Your task to perform on an android device: What's on the menu at Five Guys? Image 0: 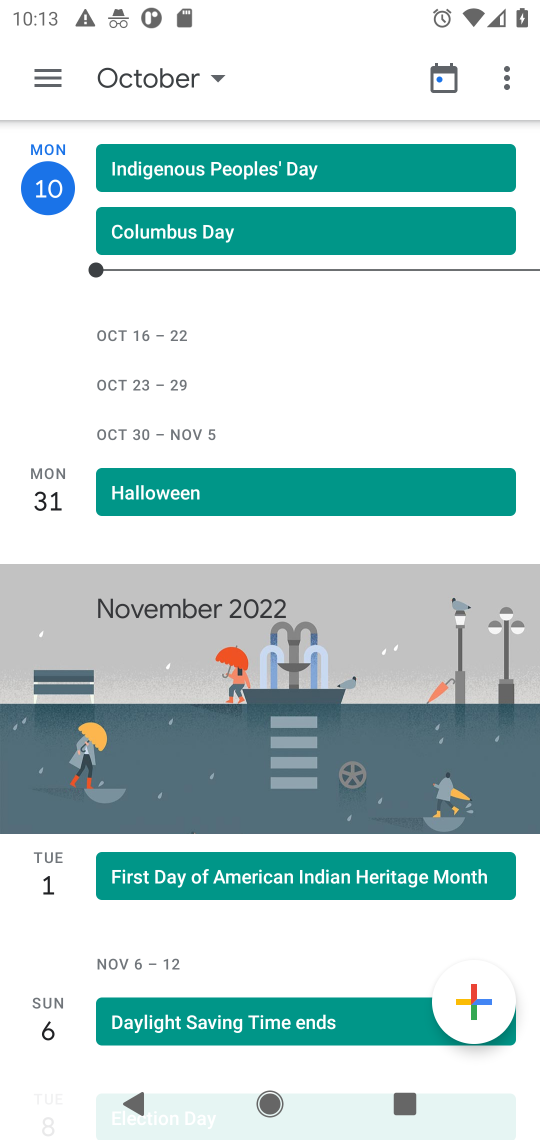
Step 0: press home button
Your task to perform on an android device: What's on the menu at Five Guys? Image 1: 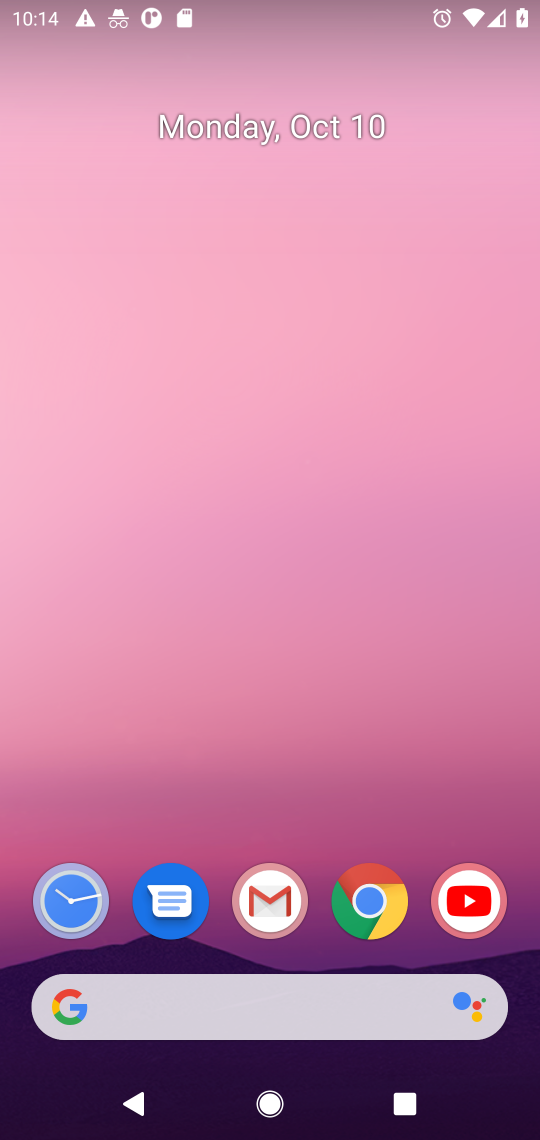
Step 1: click (352, 1009)
Your task to perform on an android device: What's on the menu at Five Guys? Image 2: 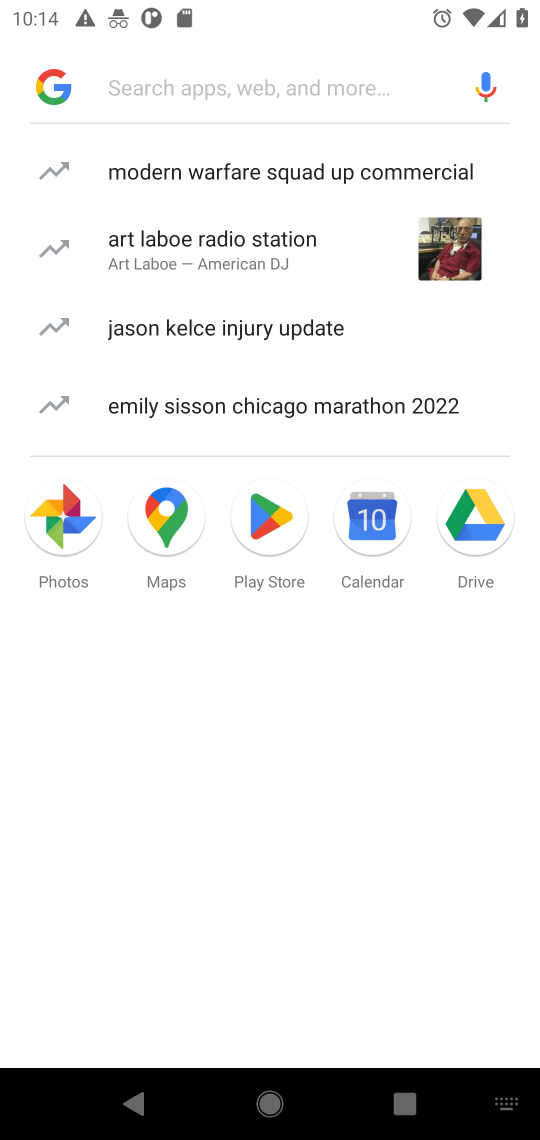
Step 2: type "What's on the menu at Five Guys?"
Your task to perform on an android device: What's on the menu at Five Guys? Image 3: 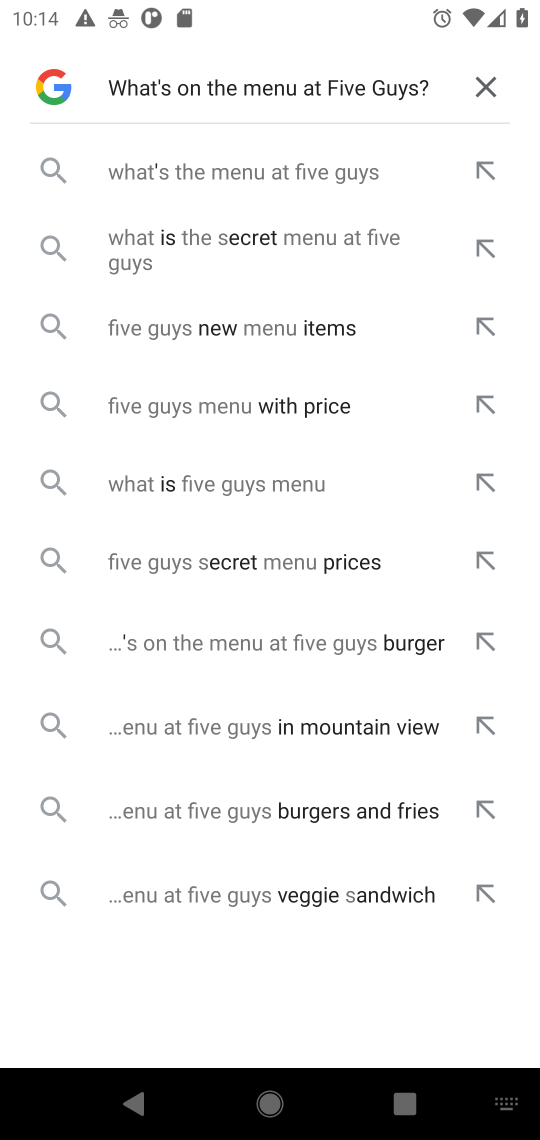
Step 3: press enter
Your task to perform on an android device: What's on the menu at Five Guys? Image 4: 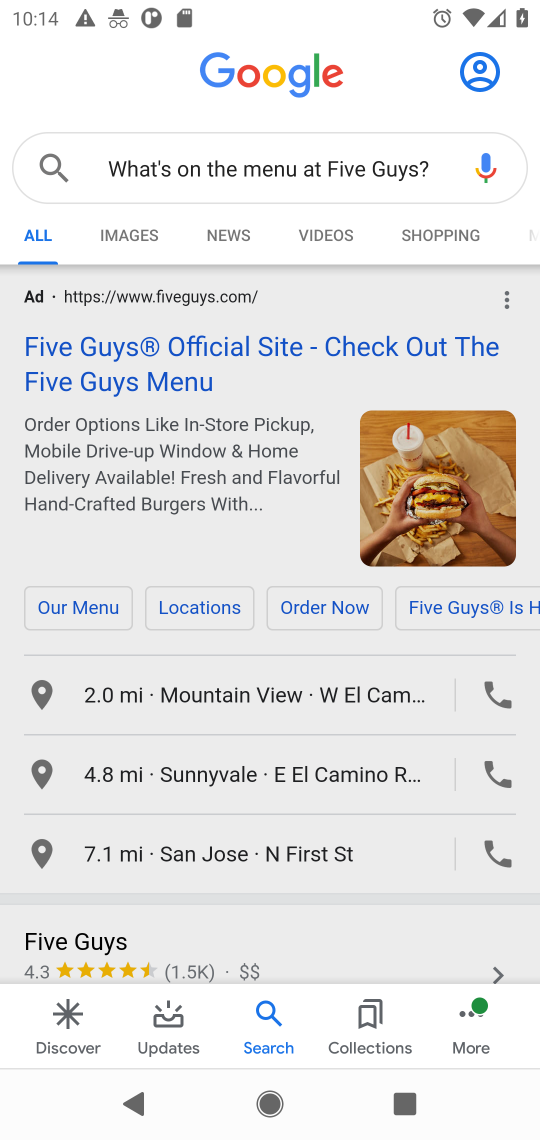
Step 4: drag from (283, 871) to (279, 744)
Your task to perform on an android device: What's on the menu at Five Guys? Image 5: 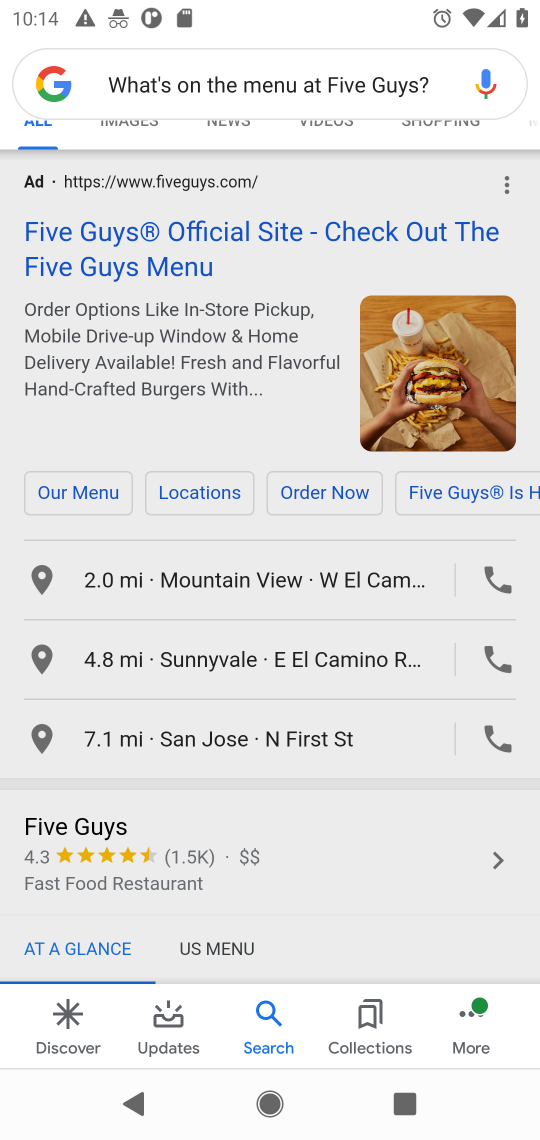
Step 5: drag from (307, 913) to (298, 491)
Your task to perform on an android device: What's on the menu at Five Guys? Image 6: 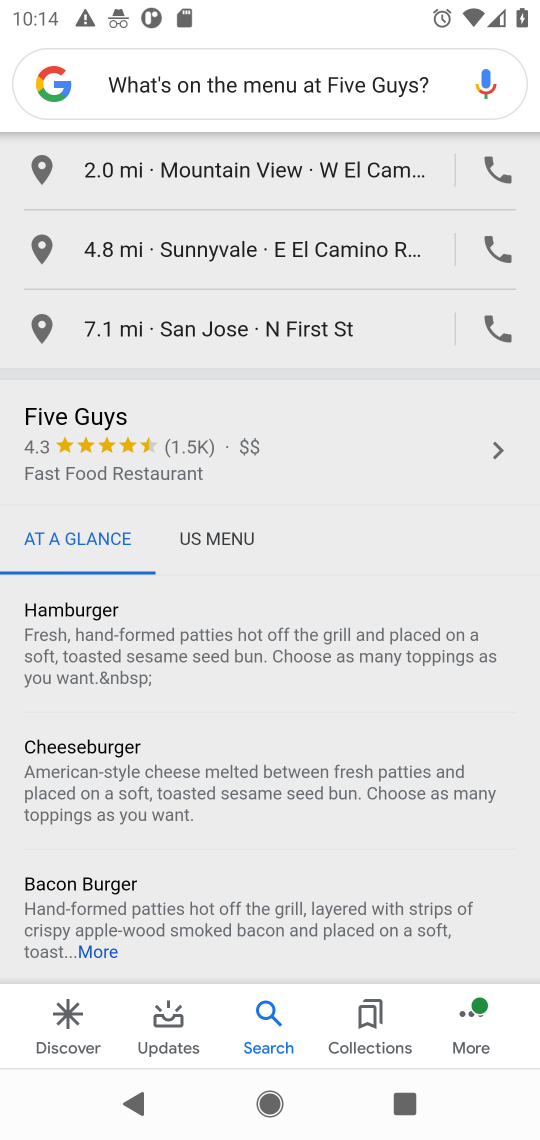
Step 6: drag from (290, 825) to (301, 487)
Your task to perform on an android device: What's on the menu at Five Guys? Image 7: 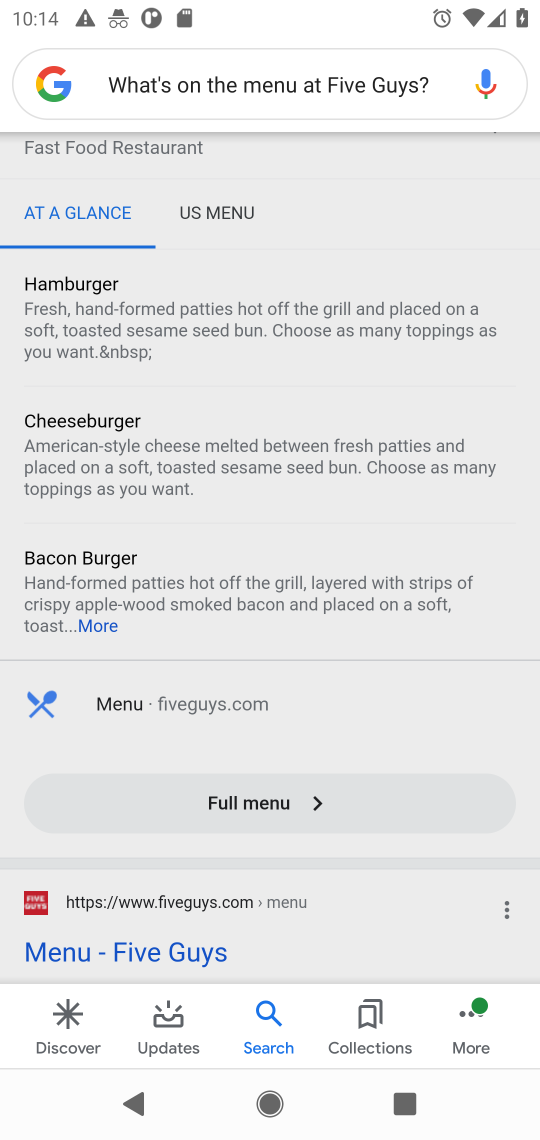
Step 7: click (272, 800)
Your task to perform on an android device: What's on the menu at Five Guys? Image 8: 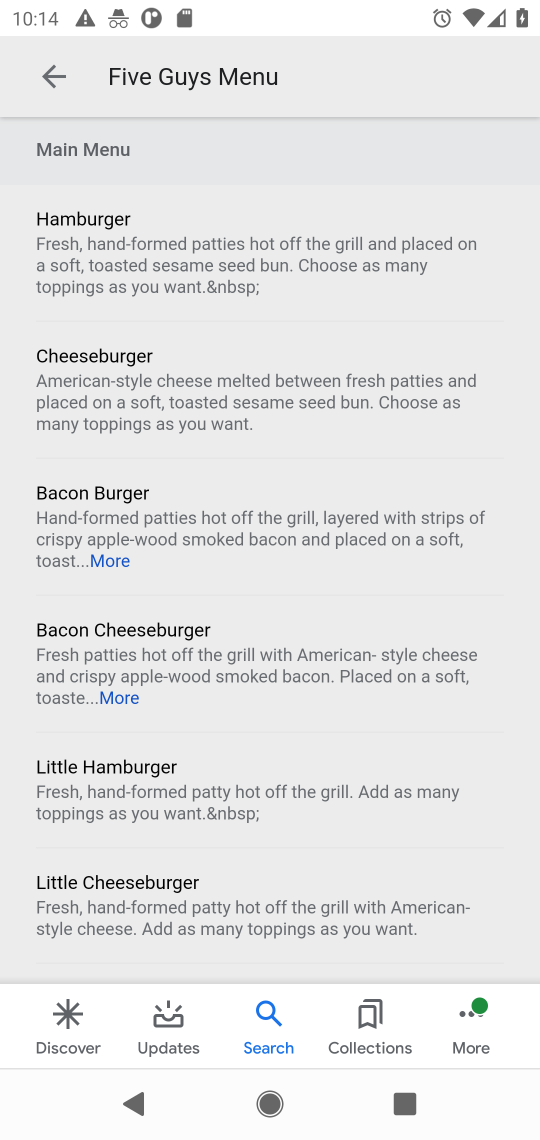
Step 8: task complete